Your task to perform on an android device: move an email to a new category in the gmail app Image 0: 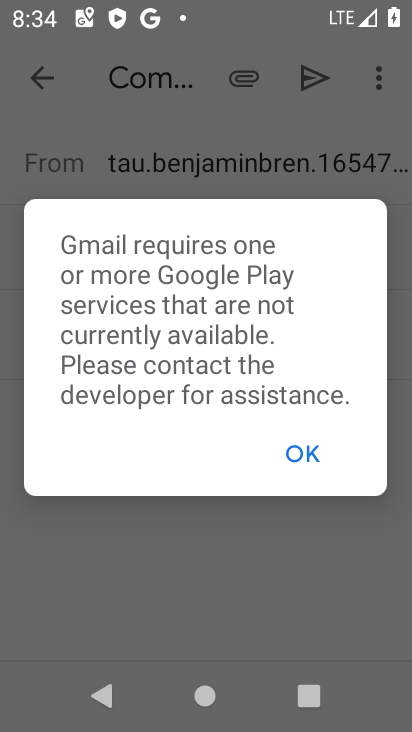
Step 0: press back button
Your task to perform on an android device: move an email to a new category in the gmail app Image 1: 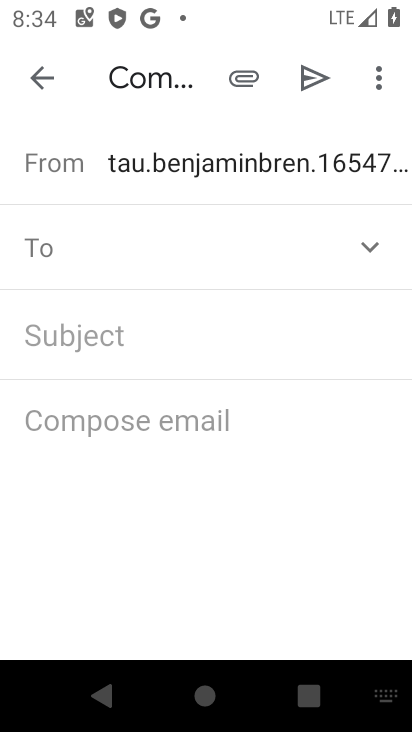
Step 1: press home button
Your task to perform on an android device: move an email to a new category in the gmail app Image 2: 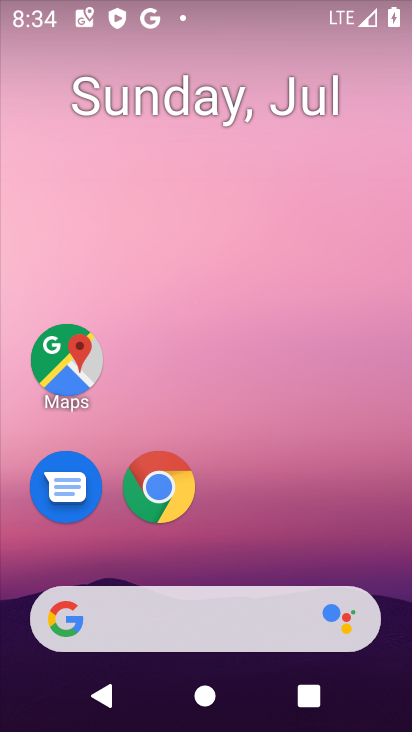
Step 2: drag from (233, 535) to (240, 47)
Your task to perform on an android device: move an email to a new category in the gmail app Image 3: 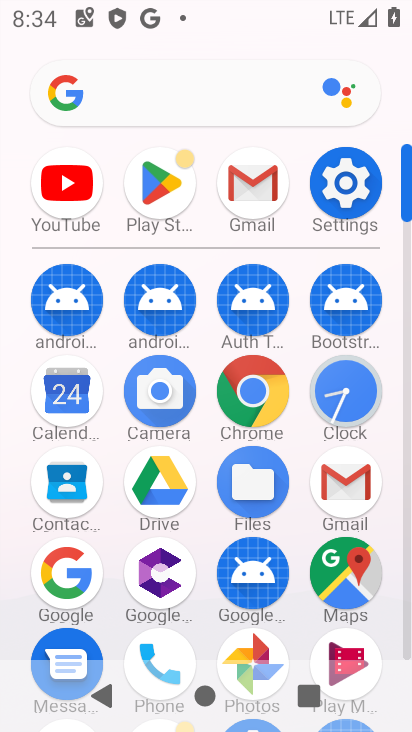
Step 3: click (240, 182)
Your task to perform on an android device: move an email to a new category in the gmail app Image 4: 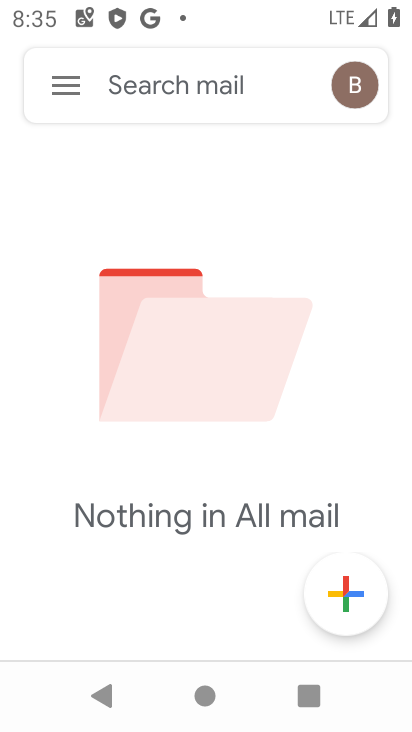
Step 4: task complete